Your task to perform on an android device: Do I have any events tomorrow? Image 0: 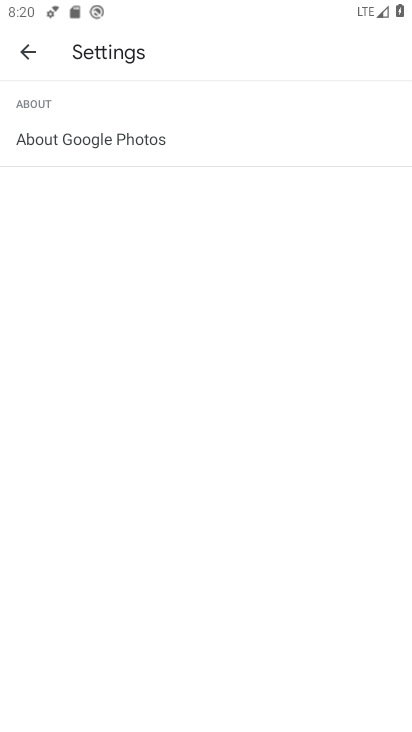
Step 0: press home button
Your task to perform on an android device: Do I have any events tomorrow? Image 1: 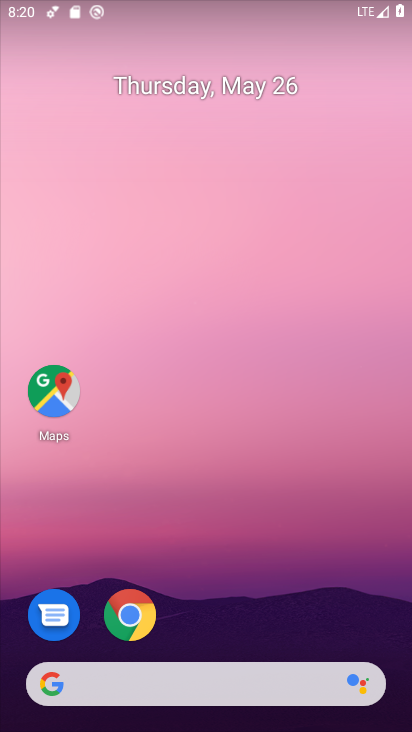
Step 1: drag from (226, 652) to (268, 235)
Your task to perform on an android device: Do I have any events tomorrow? Image 2: 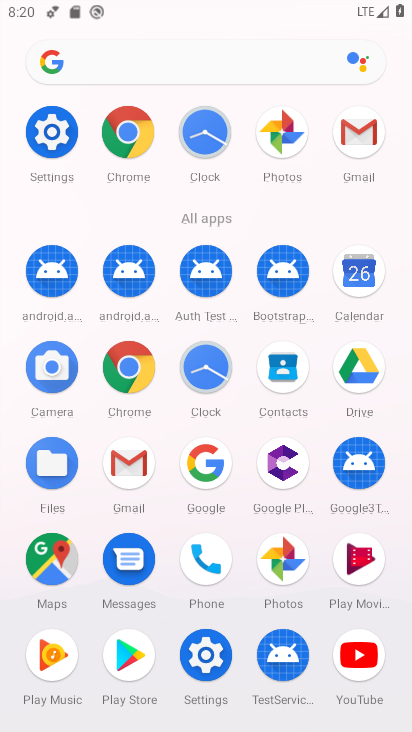
Step 2: click (349, 271)
Your task to perform on an android device: Do I have any events tomorrow? Image 3: 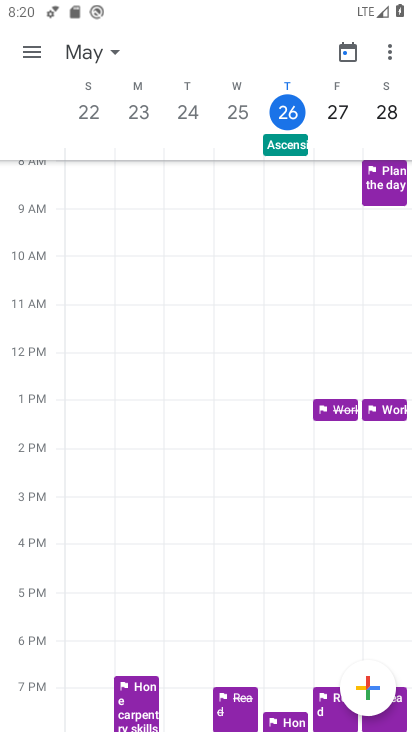
Step 3: click (341, 98)
Your task to perform on an android device: Do I have any events tomorrow? Image 4: 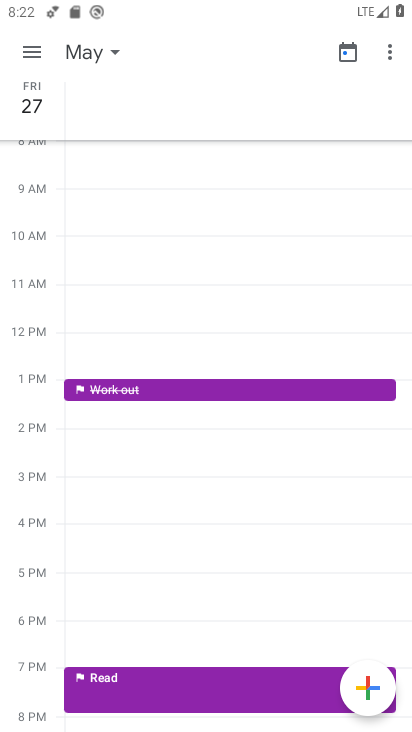
Step 4: task complete